Your task to perform on an android device: Go to wifi settings Image 0: 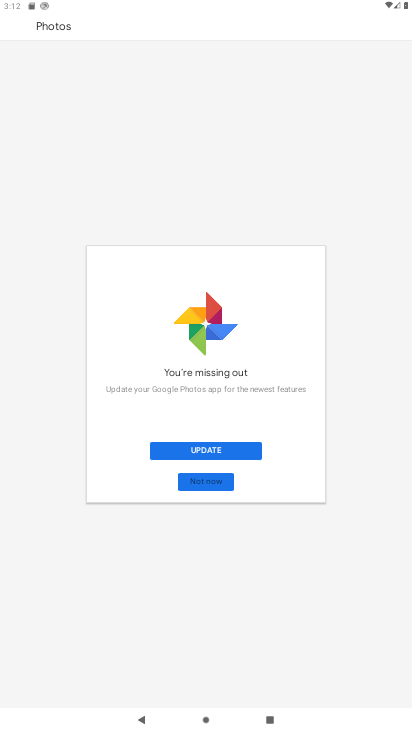
Step 0: press home button
Your task to perform on an android device: Go to wifi settings Image 1: 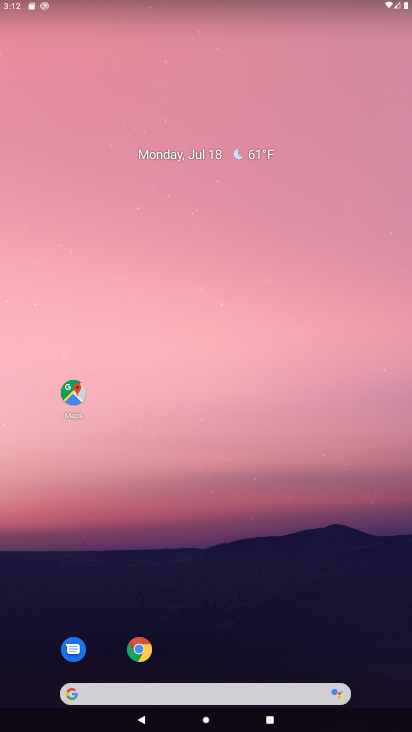
Step 1: drag from (242, 603) to (210, 26)
Your task to perform on an android device: Go to wifi settings Image 2: 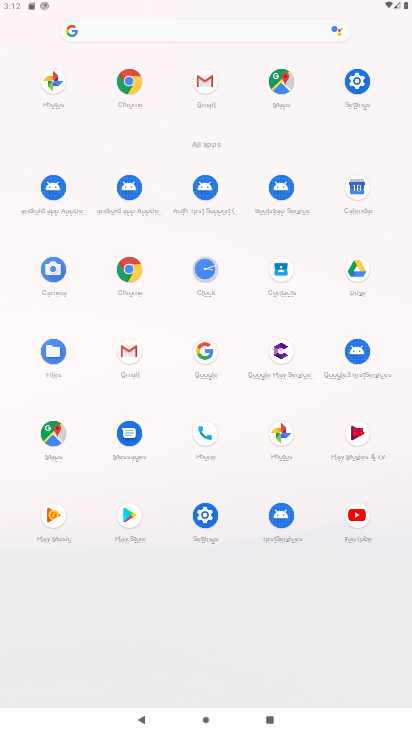
Step 2: click (356, 76)
Your task to perform on an android device: Go to wifi settings Image 3: 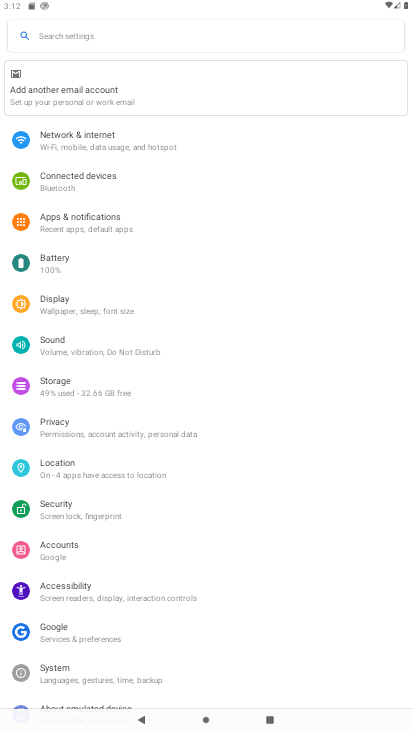
Step 3: click (126, 149)
Your task to perform on an android device: Go to wifi settings Image 4: 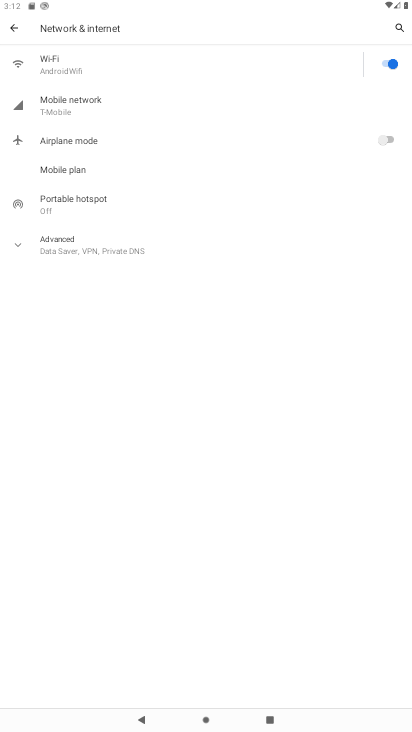
Step 4: click (94, 48)
Your task to perform on an android device: Go to wifi settings Image 5: 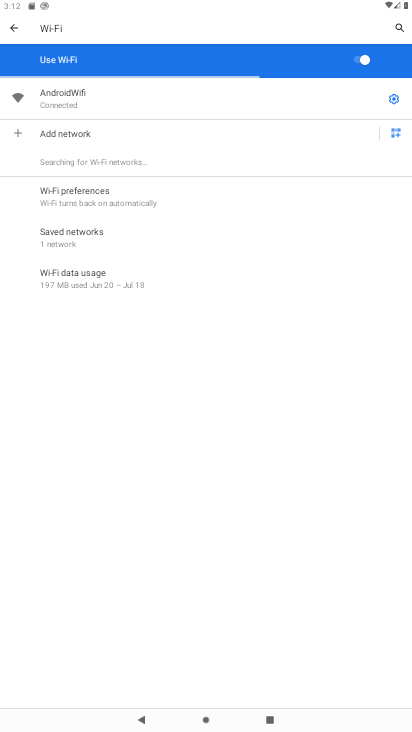
Step 5: task complete